Your task to perform on an android device: Search for seafood restaurants on Google Maps Image 0: 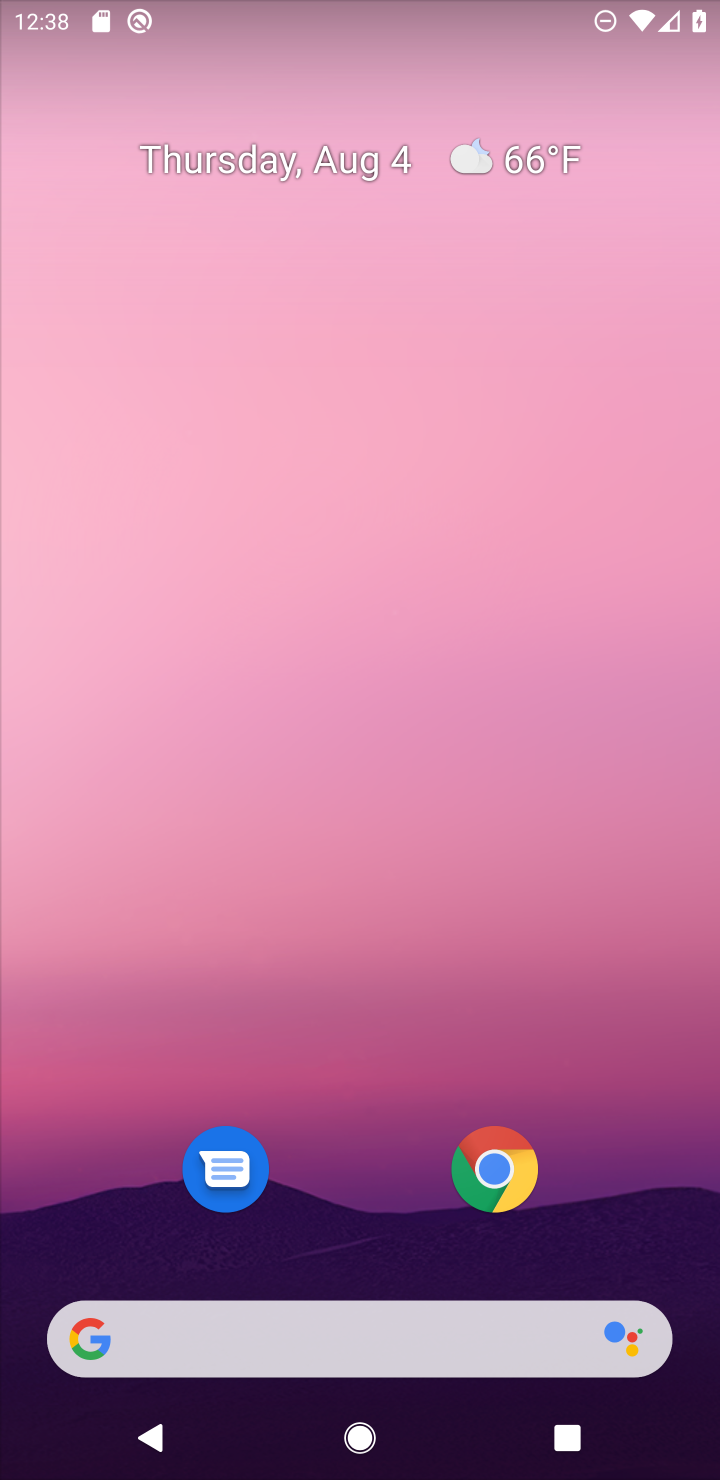
Step 0: drag from (368, 1176) to (410, 4)
Your task to perform on an android device: Search for seafood restaurants on Google Maps Image 1: 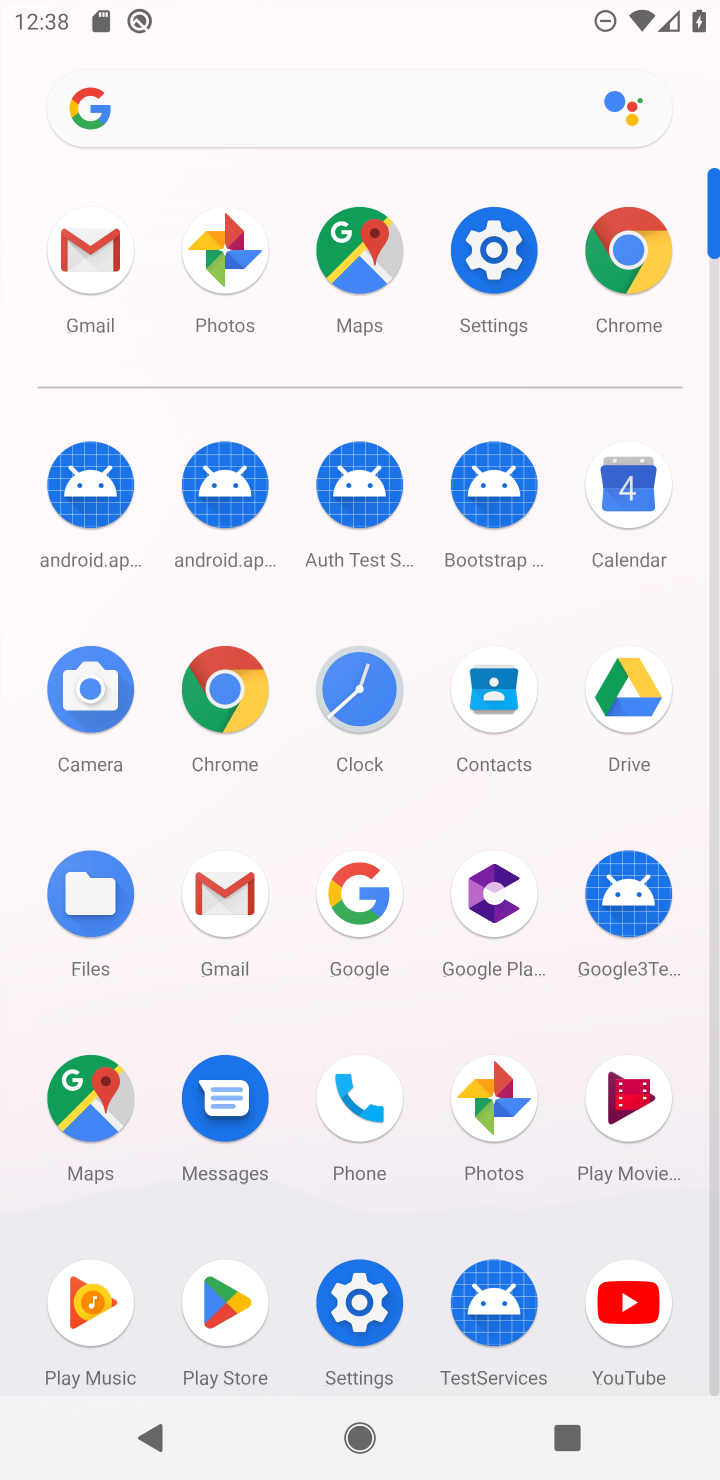
Step 1: click (349, 252)
Your task to perform on an android device: Search for seafood restaurants on Google Maps Image 2: 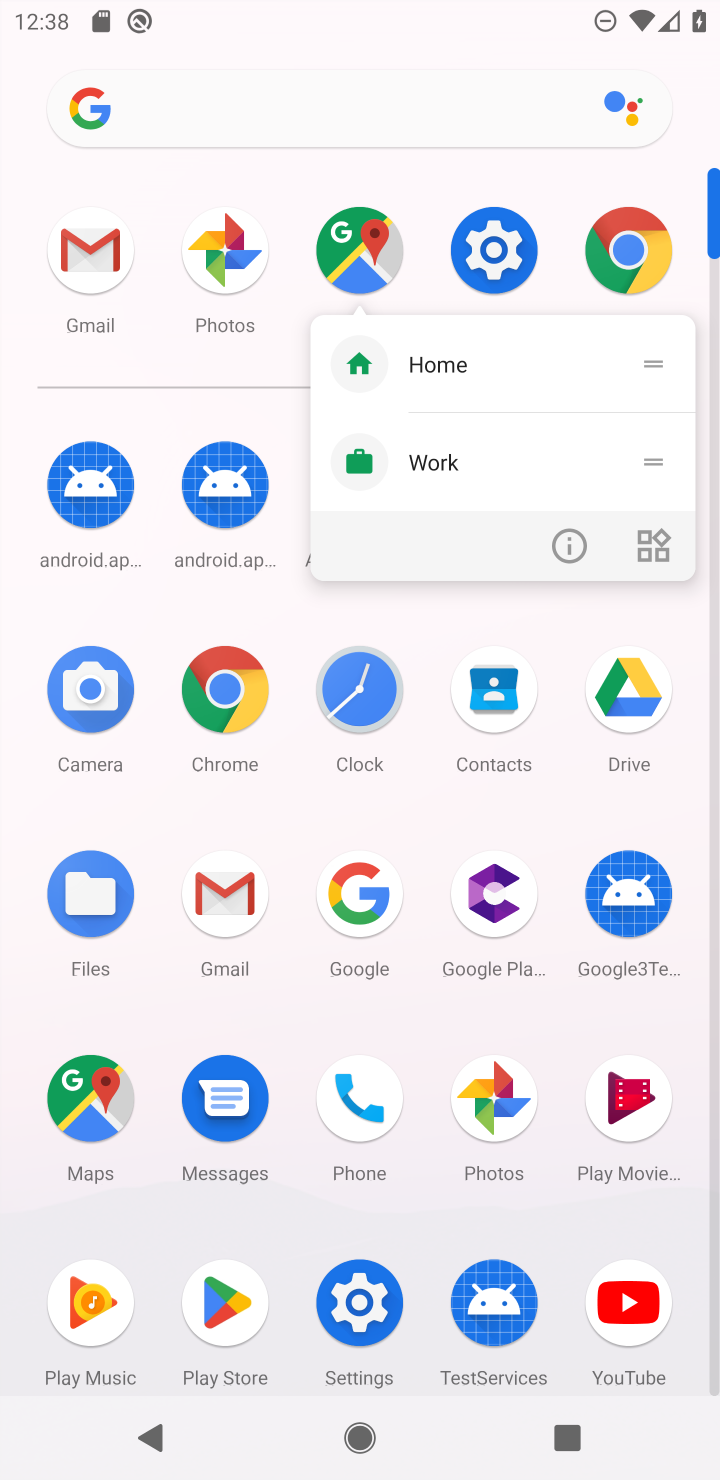
Step 2: click (360, 252)
Your task to perform on an android device: Search for seafood restaurants on Google Maps Image 3: 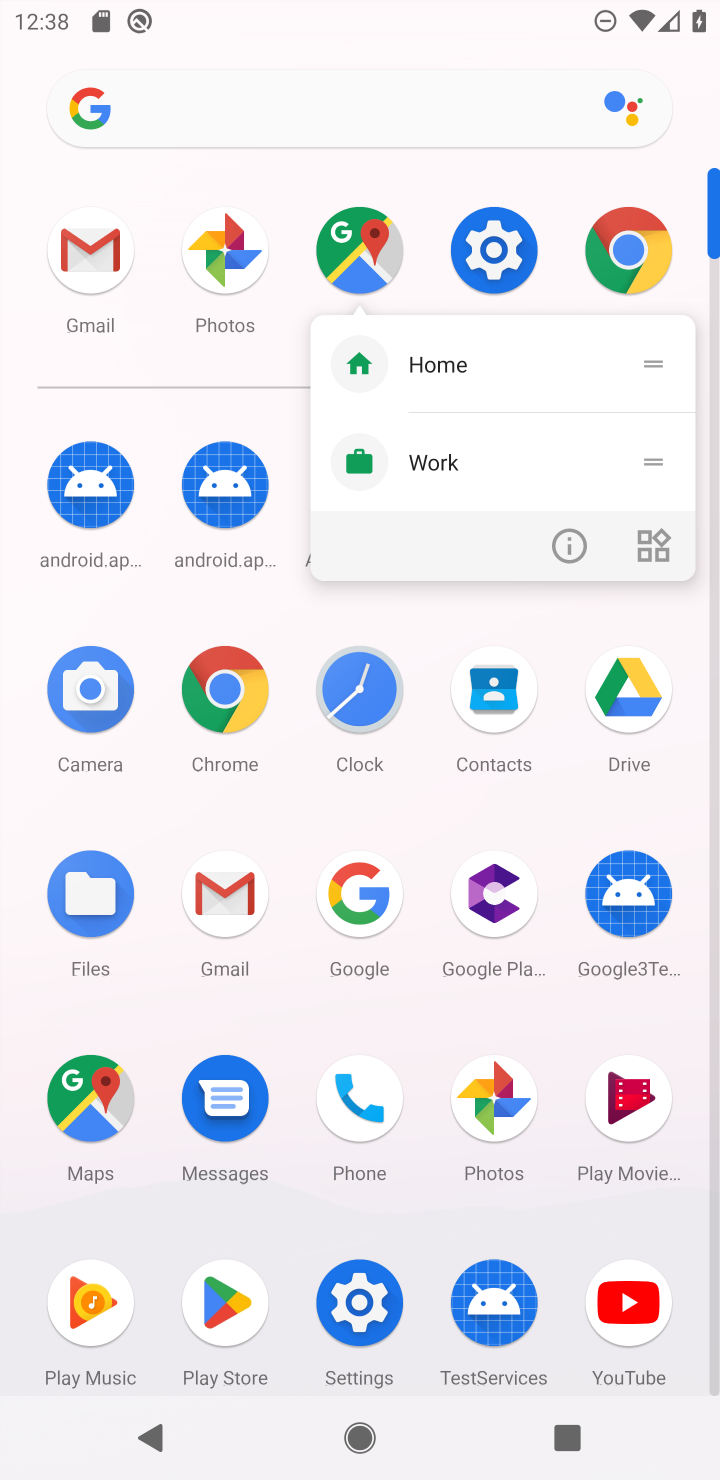
Step 3: click (360, 252)
Your task to perform on an android device: Search for seafood restaurants on Google Maps Image 4: 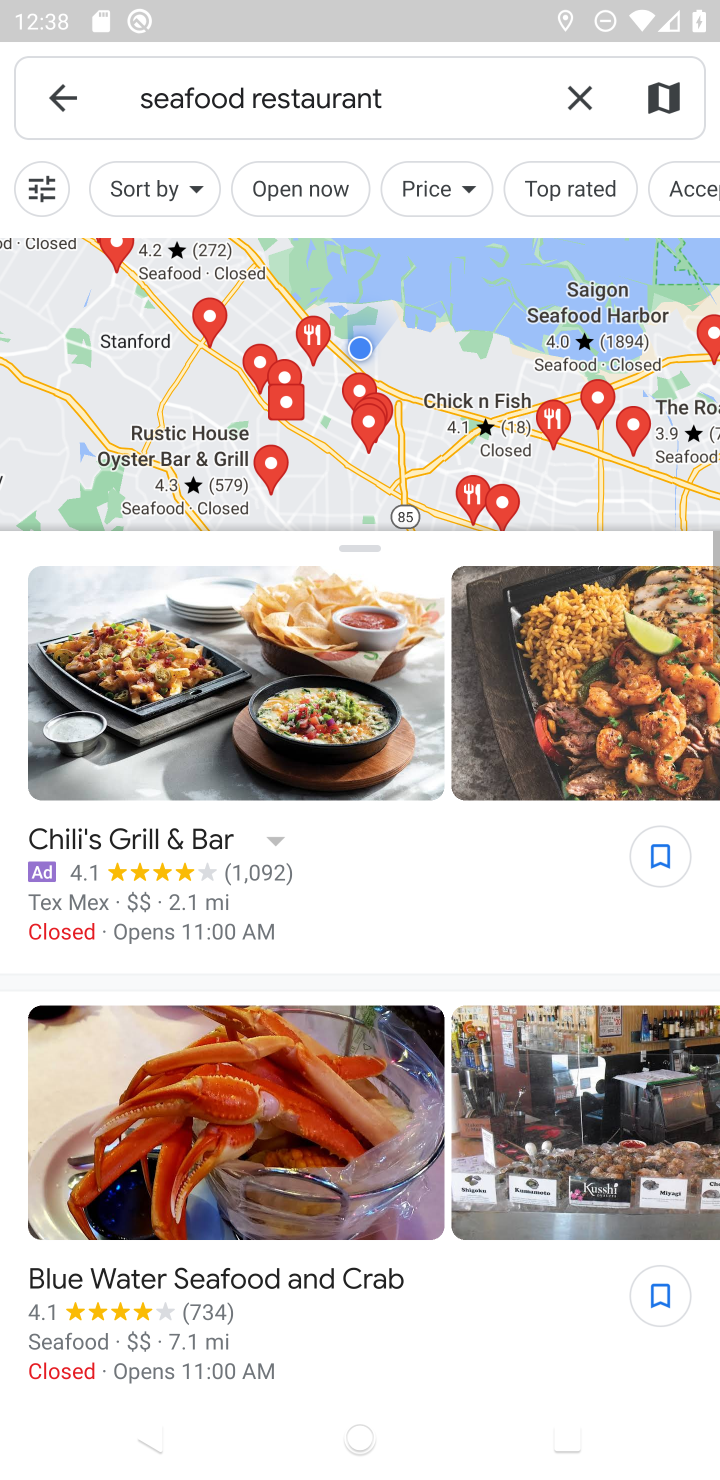
Step 4: task complete